Your task to perform on an android device: Open Google Image 0: 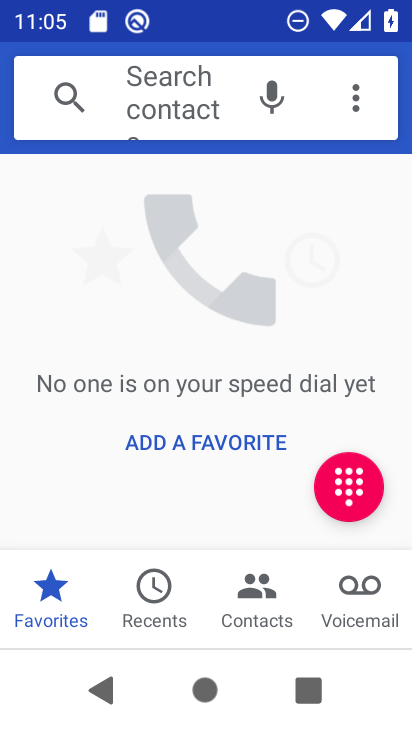
Step 0: press home button
Your task to perform on an android device: Open Google Image 1: 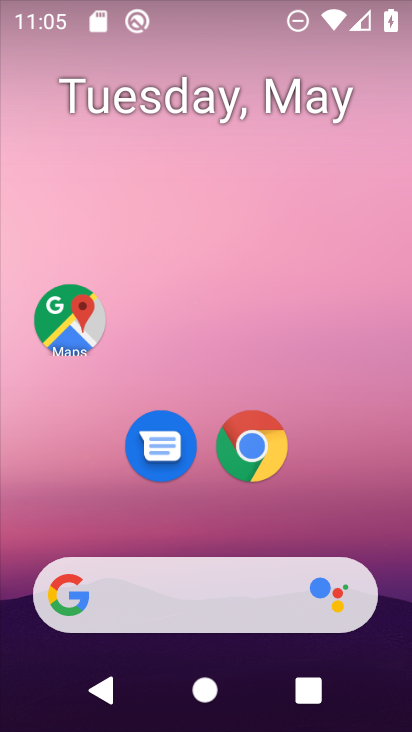
Step 1: click (178, 605)
Your task to perform on an android device: Open Google Image 2: 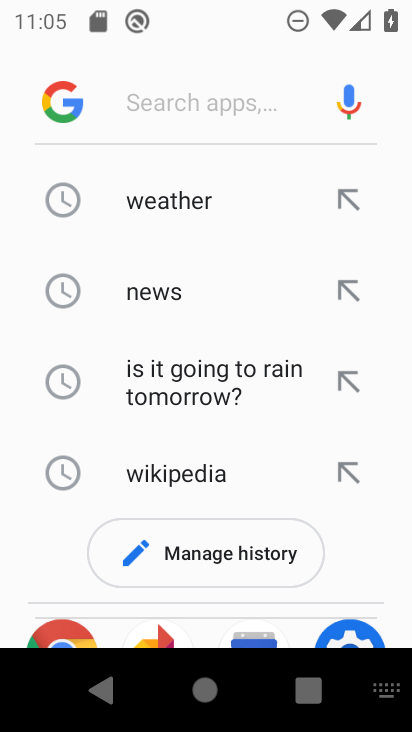
Step 2: click (72, 87)
Your task to perform on an android device: Open Google Image 3: 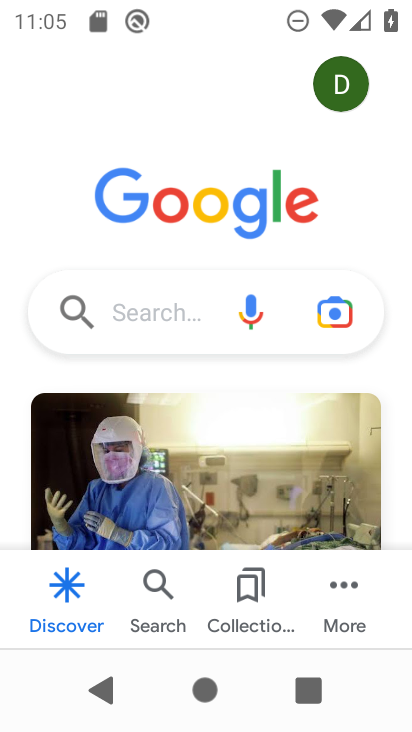
Step 3: task complete